Your task to perform on an android device: Go to accessibility settings Image 0: 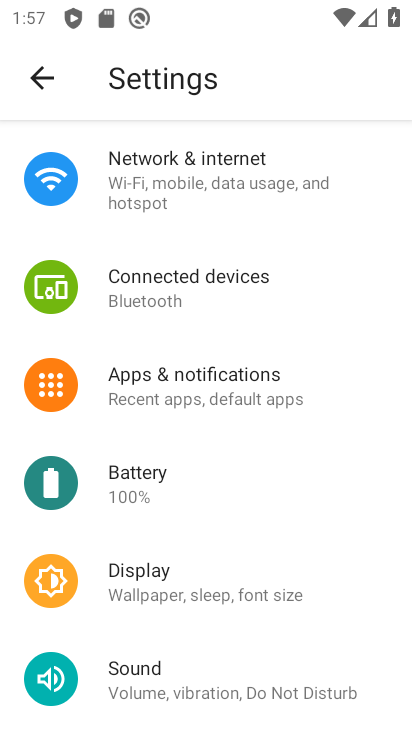
Step 0: drag from (235, 667) to (315, 97)
Your task to perform on an android device: Go to accessibility settings Image 1: 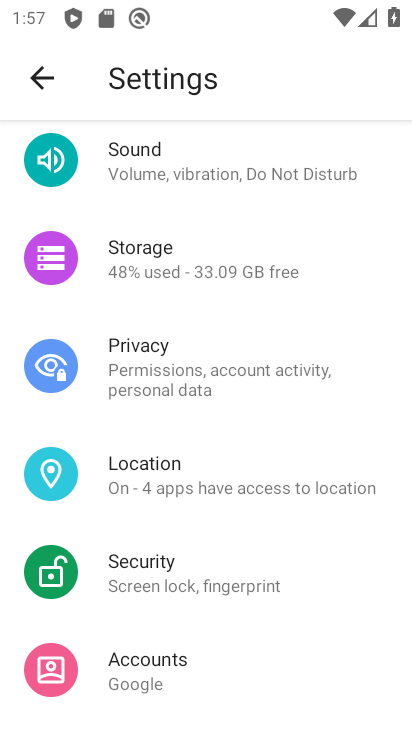
Step 1: drag from (117, 601) to (279, 18)
Your task to perform on an android device: Go to accessibility settings Image 2: 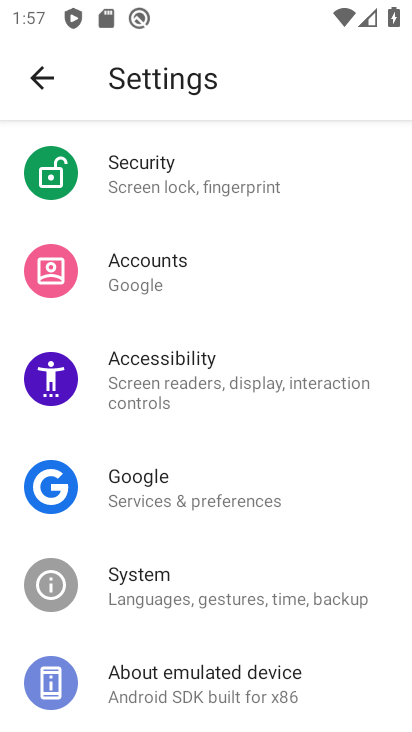
Step 2: click (159, 373)
Your task to perform on an android device: Go to accessibility settings Image 3: 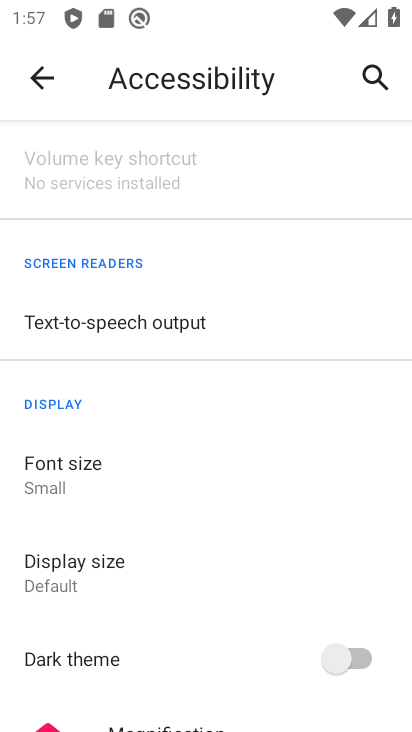
Step 3: task complete